Your task to perform on an android device: open app "Microsoft Authenticator" (install if not already installed), go to login, and select forgot password Image 0: 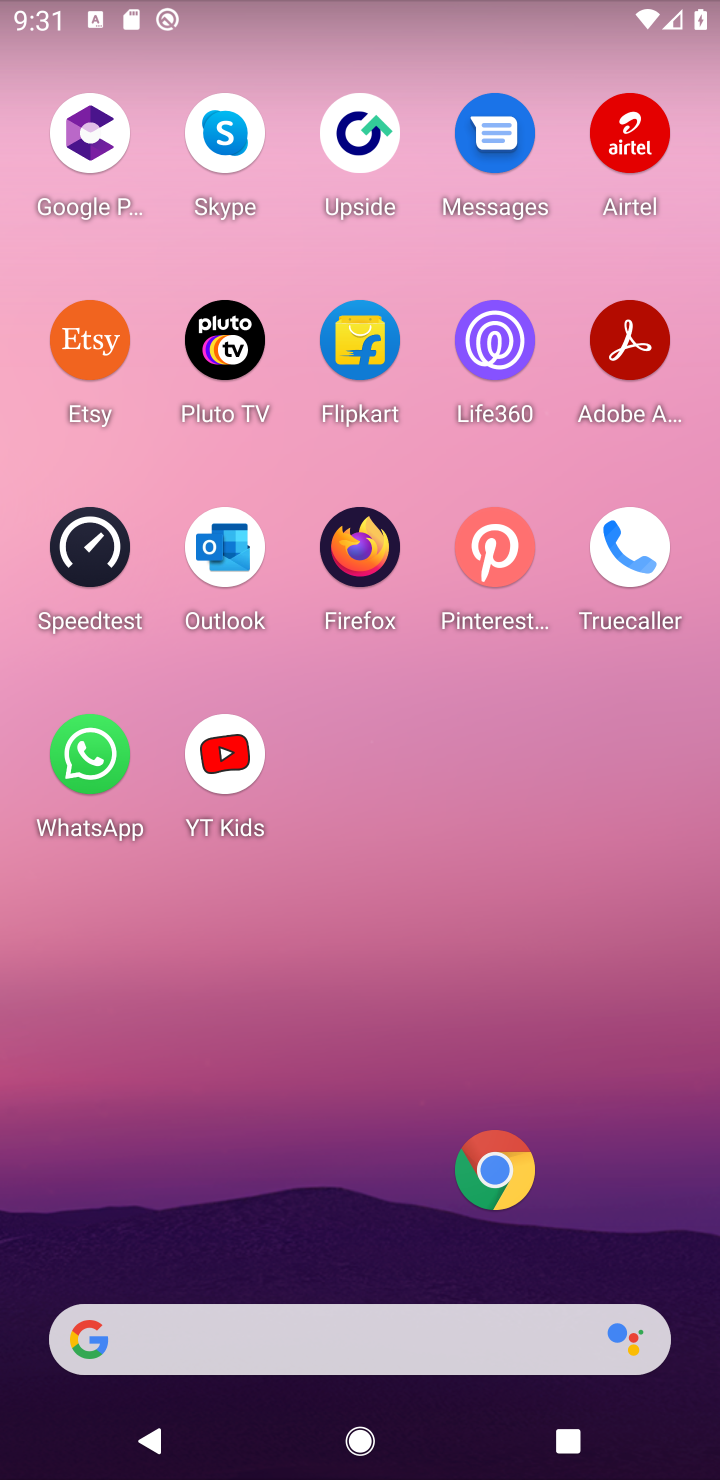
Step 0: drag from (288, 934) to (469, 10)
Your task to perform on an android device: open app "Microsoft Authenticator" (install if not already installed), go to login, and select forgot password Image 1: 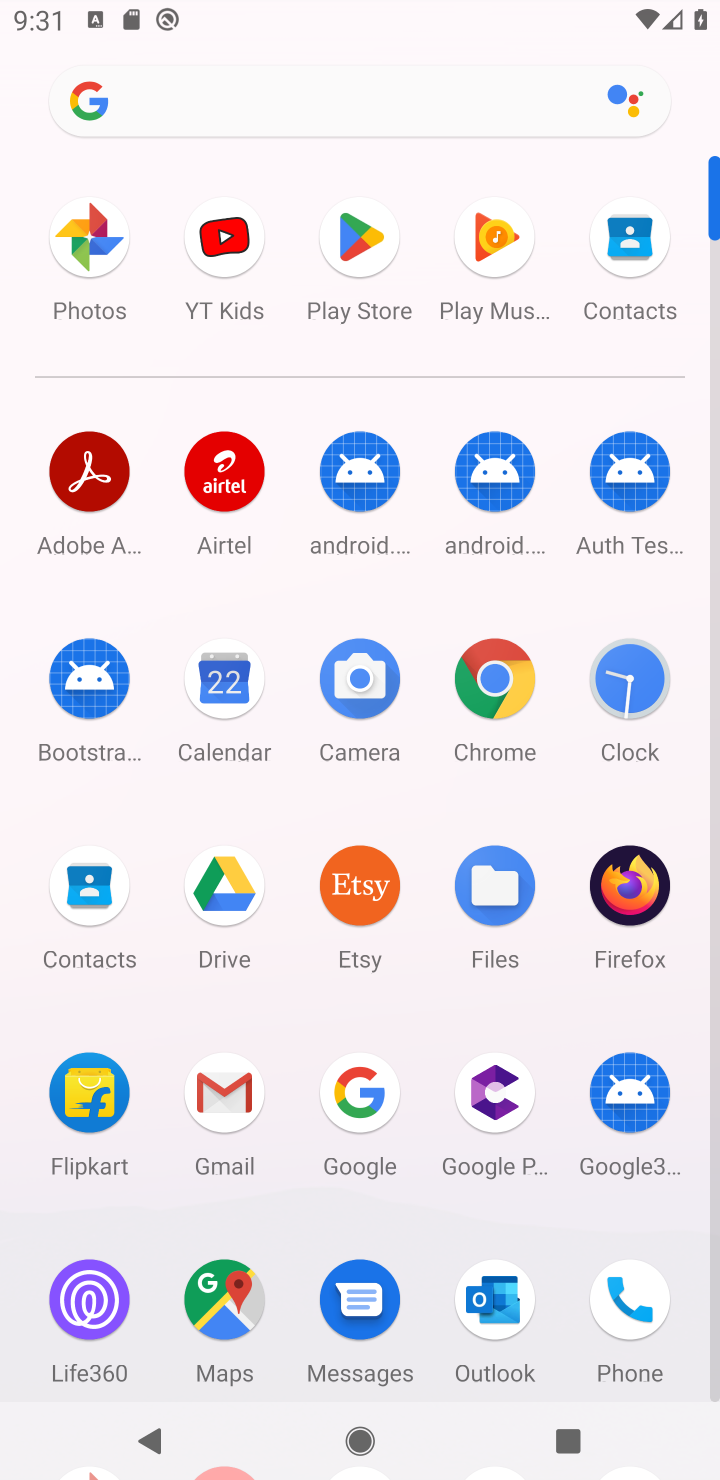
Step 1: click (375, 246)
Your task to perform on an android device: open app "Microsoft Authenticator" (install if not already installed), go to login, and select forgot password Image 2: 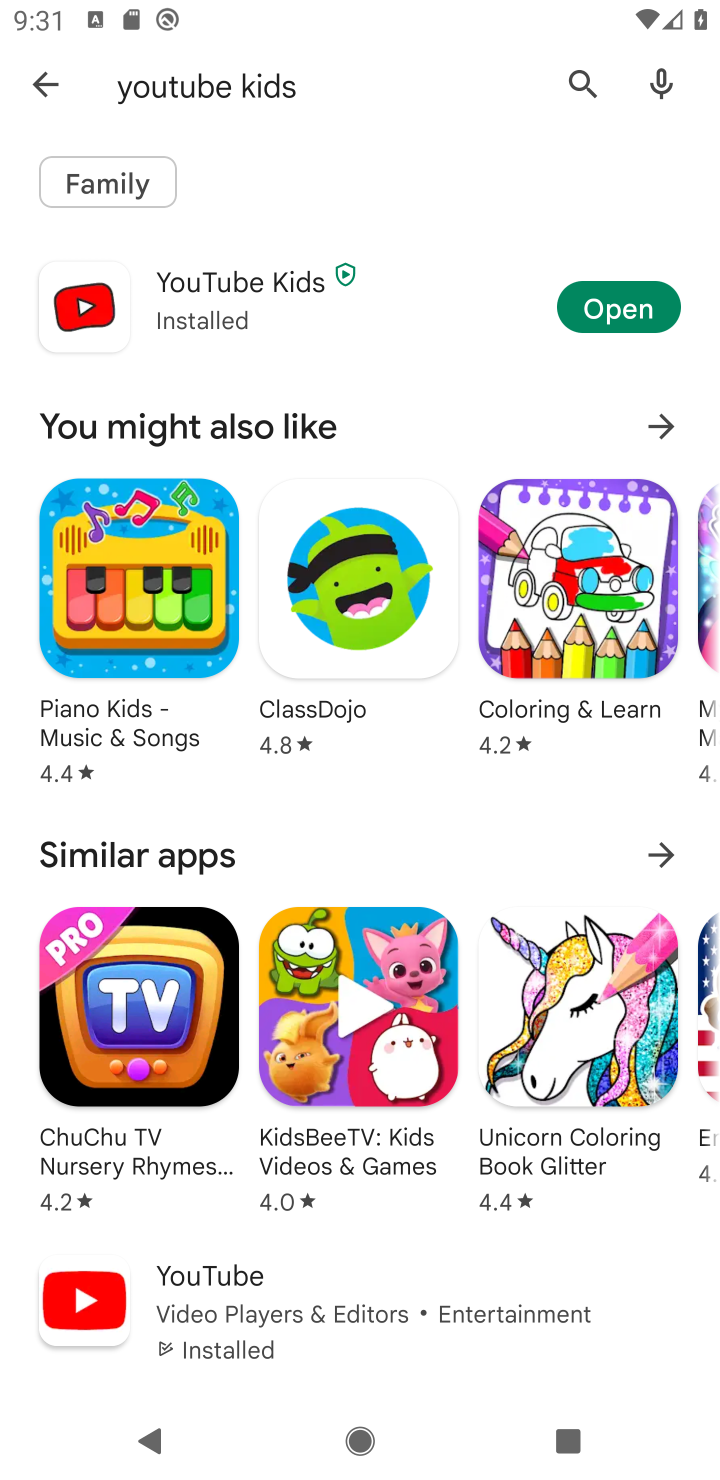
Step 2: click (596, 86)
Your task to perform on an android device: open app "Microsoft Authenticator" (install if not already installed), go to login, and select forgot password Image 3: 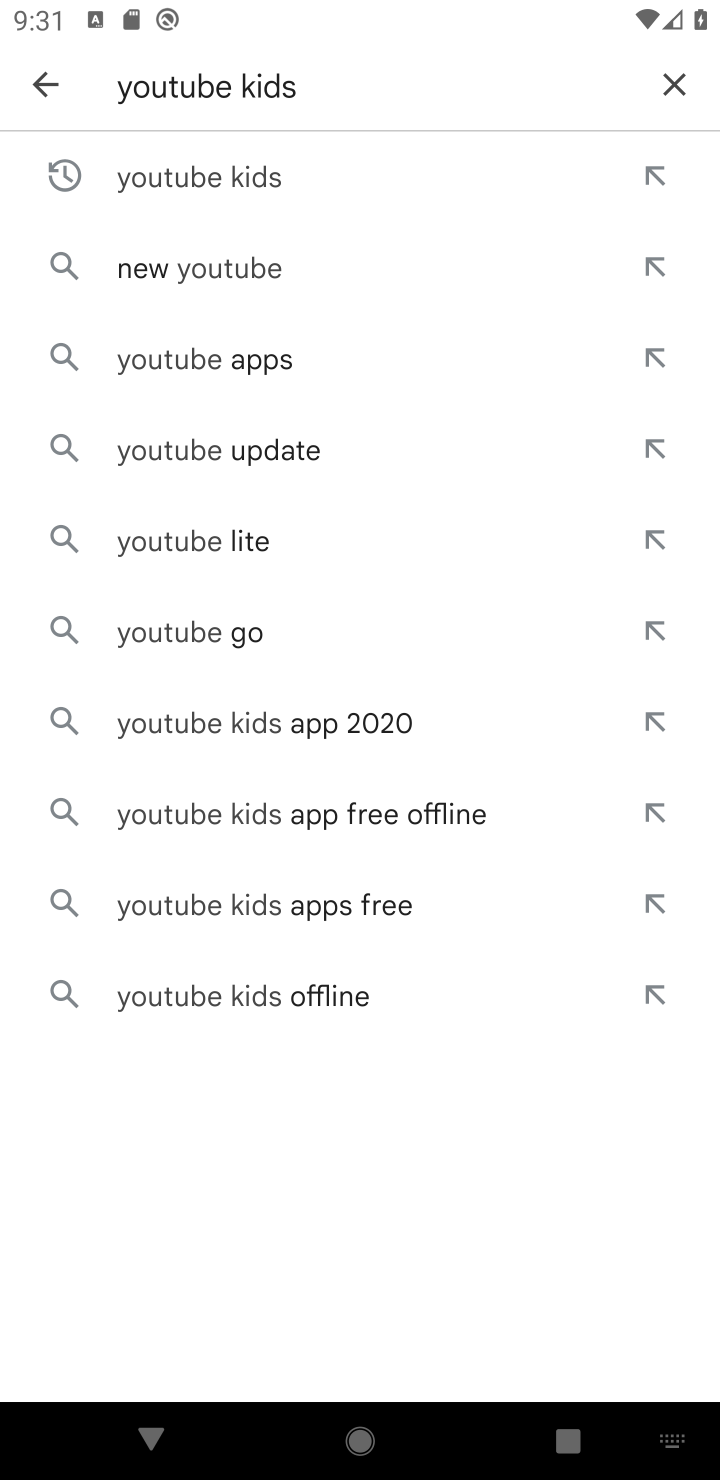
Step 3: click (680, 84)
Your task to perform on an android device: open app "Microsoft Authenticator" (install if not already installed), go to login, and select forgot password Image 4: 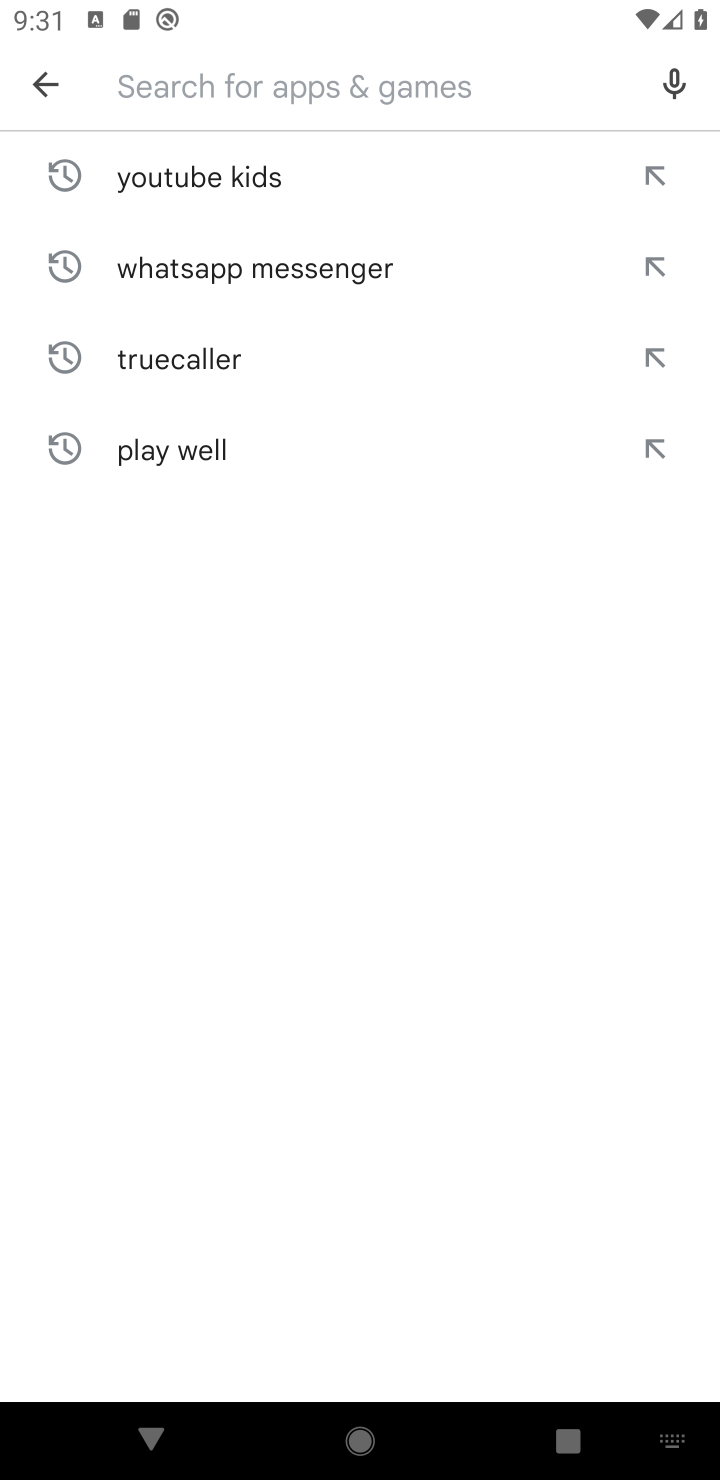
Step 4: click (316, 82)
Your task to perform on an android device: open app "Microsoft Authenticator" (install if not already installed), go to login, and select forgot password Image 5: 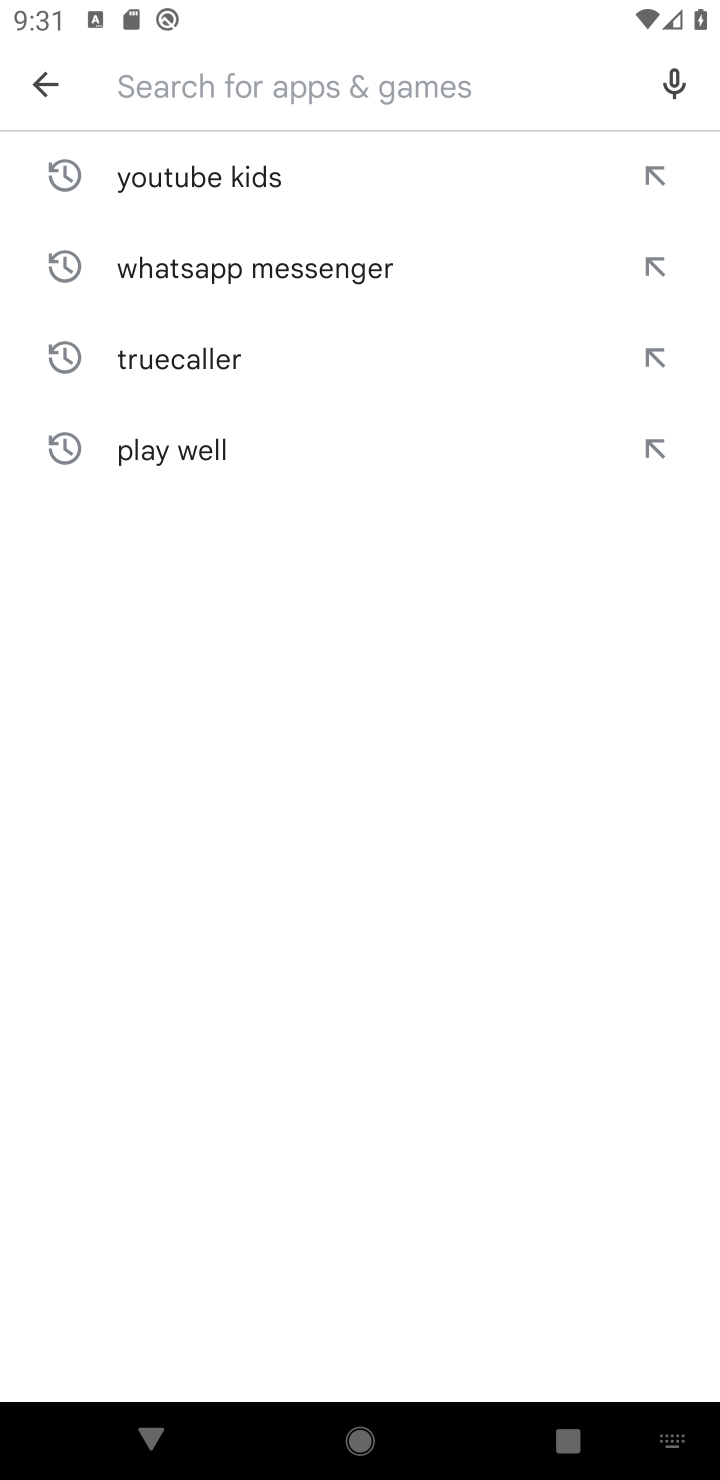
Step 5: type "Microsoft Authenticator"
Your task to perform on an android device: open app "Microsoft Authenticator" (install if not already installed), go to login, and select forgot password Image 6: 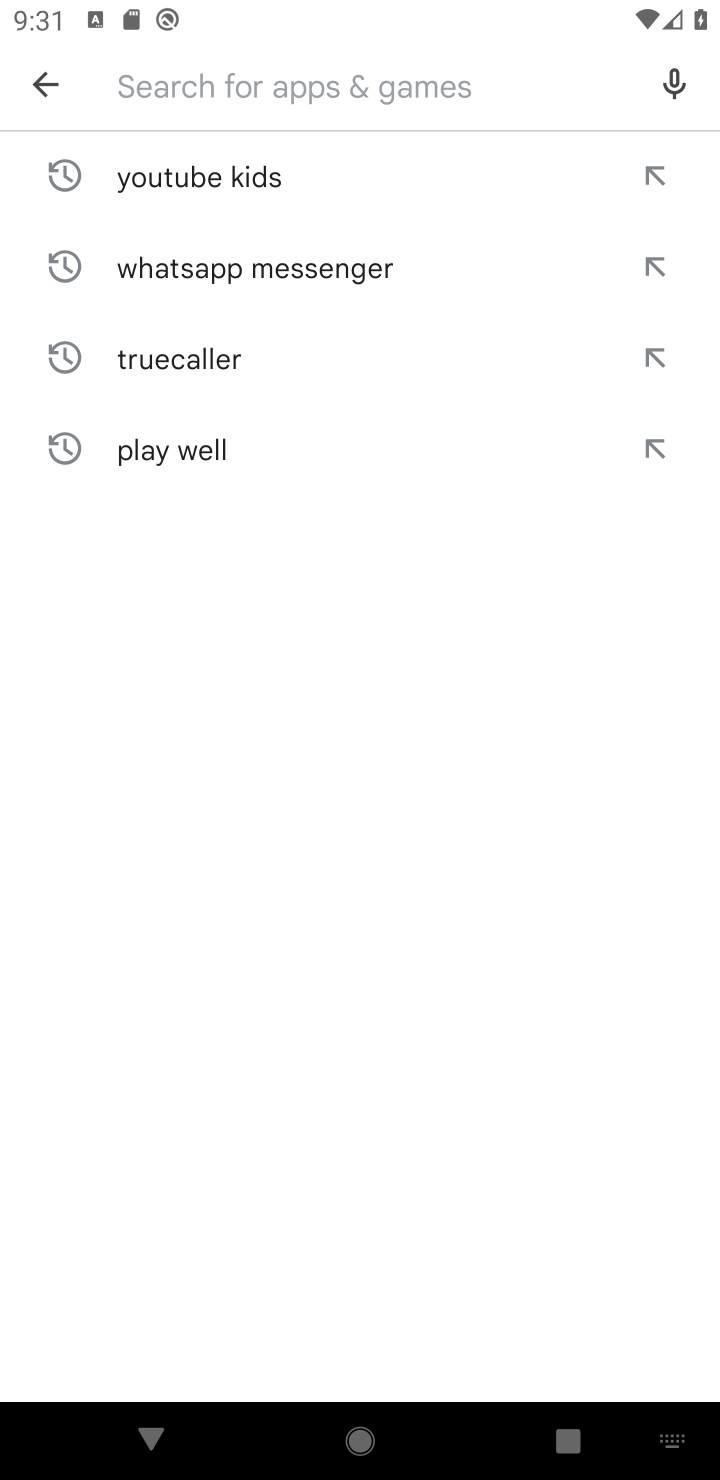
Step 6: click (541, 970)
Your task to perform on an android device: open app "Microsoft Authenticator" (install if not already installed), go to login, and select forgot password Image 7: 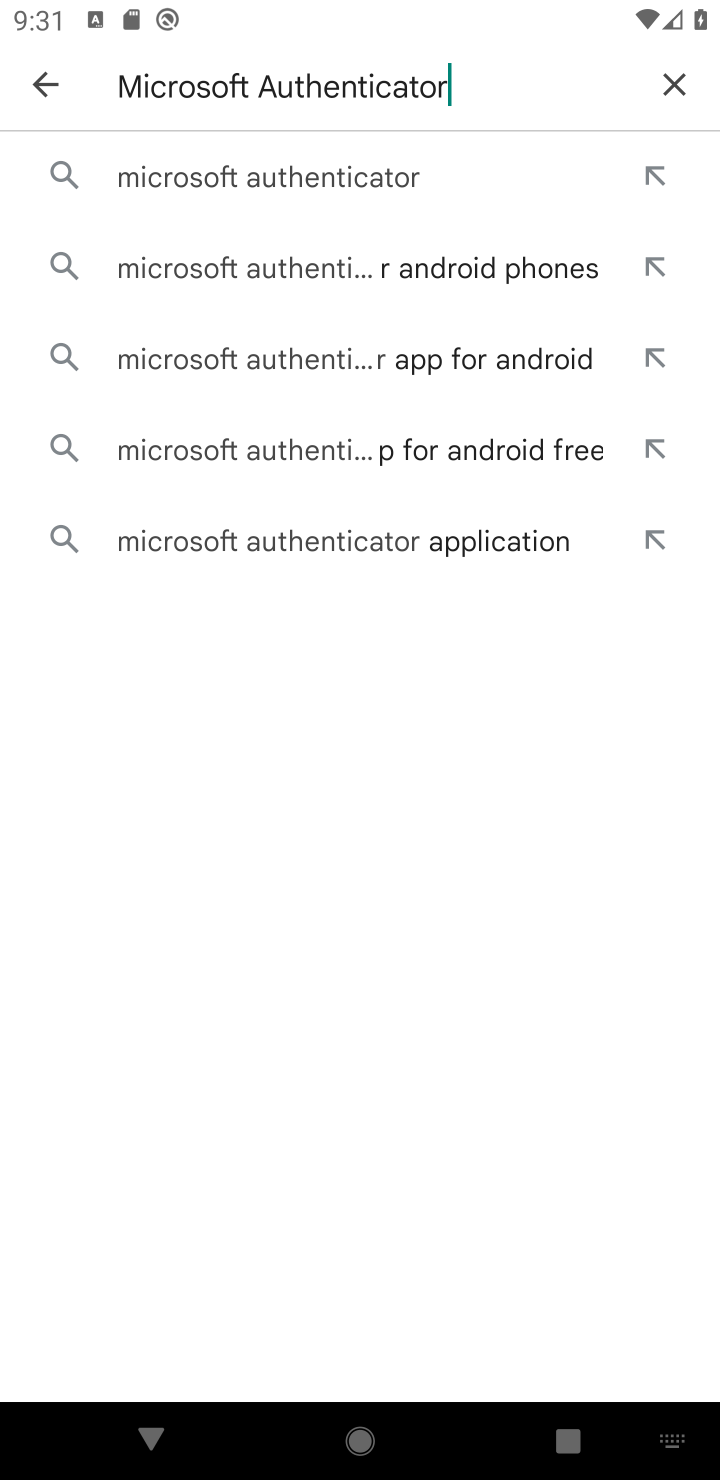
Step 7: click (276, 186)
Your task to perform on an android device: open app "Microsoft Authenticator" (install if not already installed), go to login, and select forgot password Image 8: 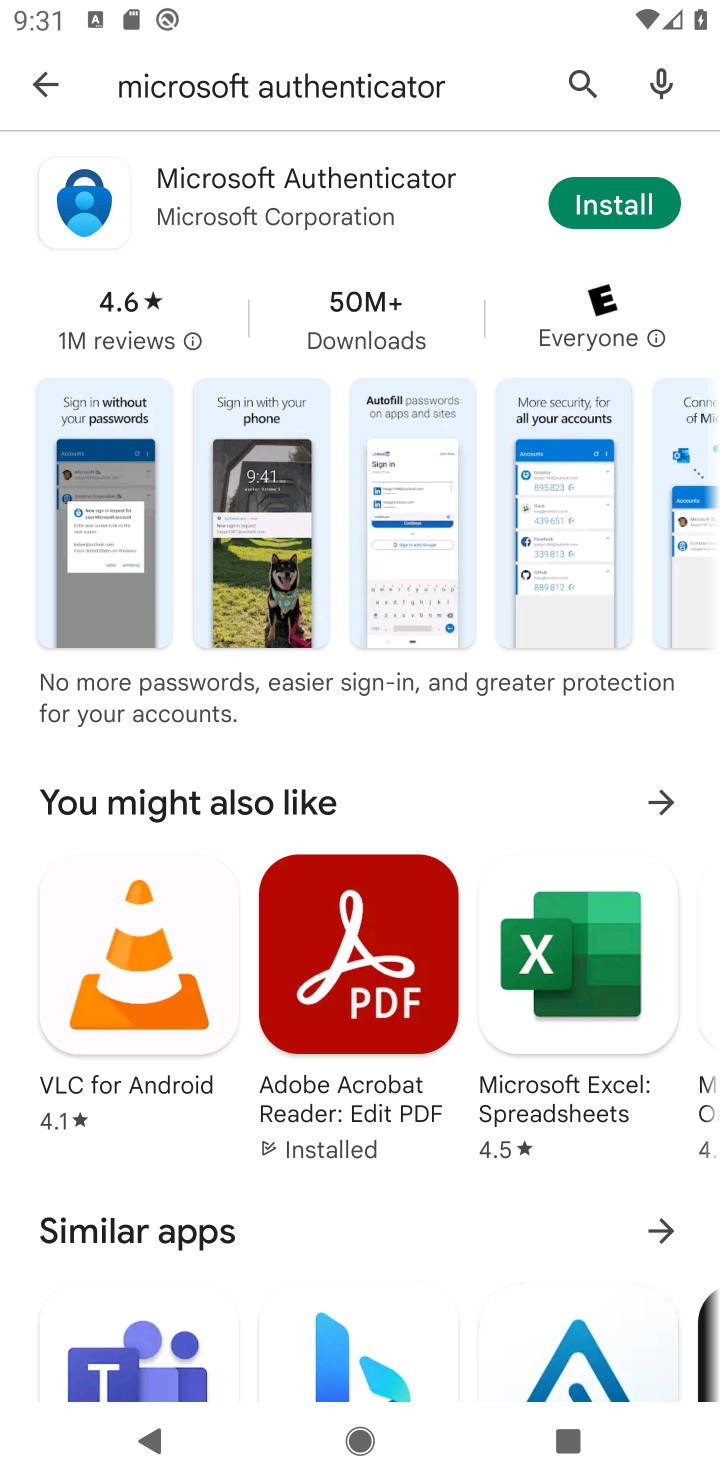
Step 8: click (611, 198)
Your task to perform on an android device: open app "Microsoft Authenticator" (install if not already installed), go to login, and select forgot password Image 9: 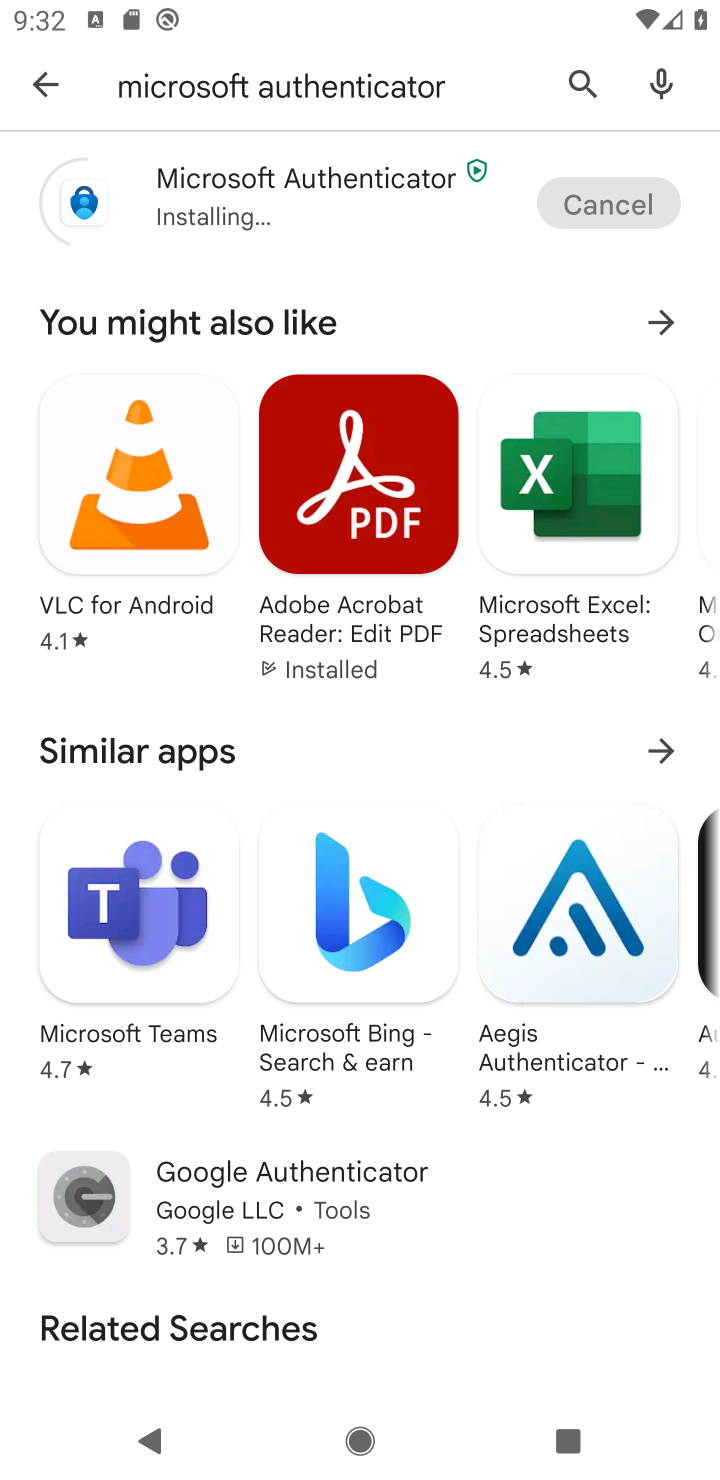
Step 9: click (308, 188)
Your task to perform on an android device: open app "Microsoft Authenticator" (install if not already installed), go to login, and select forgot password Image 10: 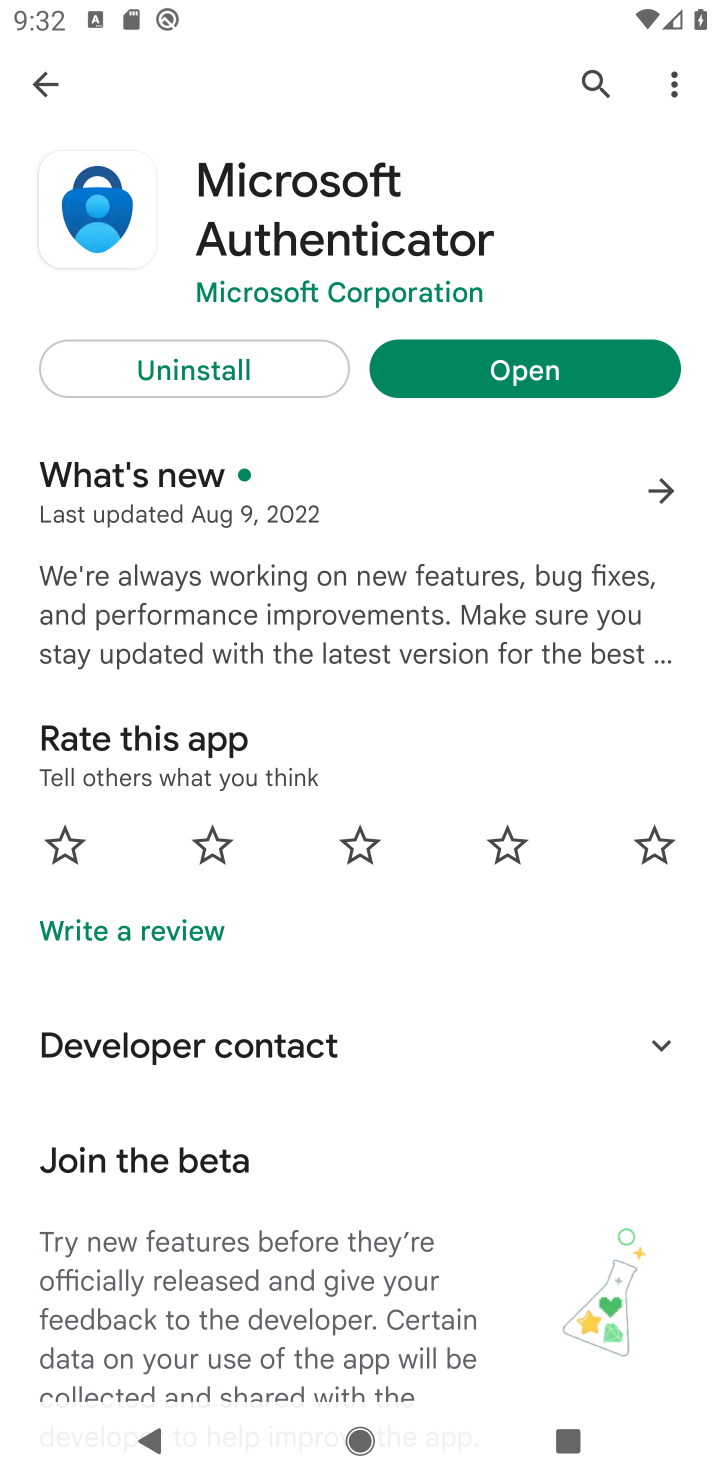
Step 10: click (551, 366)
Your task to perform on an android device: open app "Microsoft Authenticator" (install if not already installed), go to login, and select forgot password Image 11: 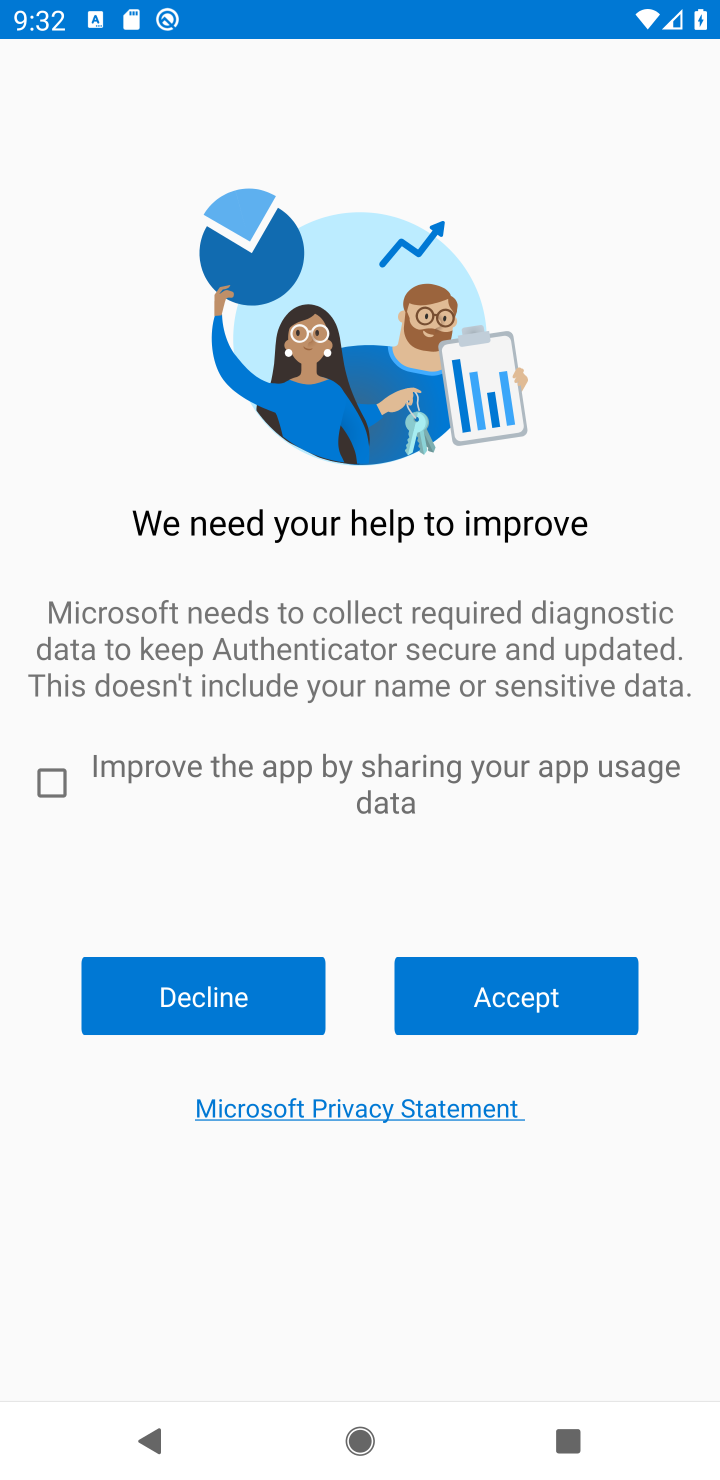
Step 11: click (40, 775)
Your task to perform on an android device: open app "Microsoft Authenticator" (install if not already installed), go to login, and select forgot password Image 12: 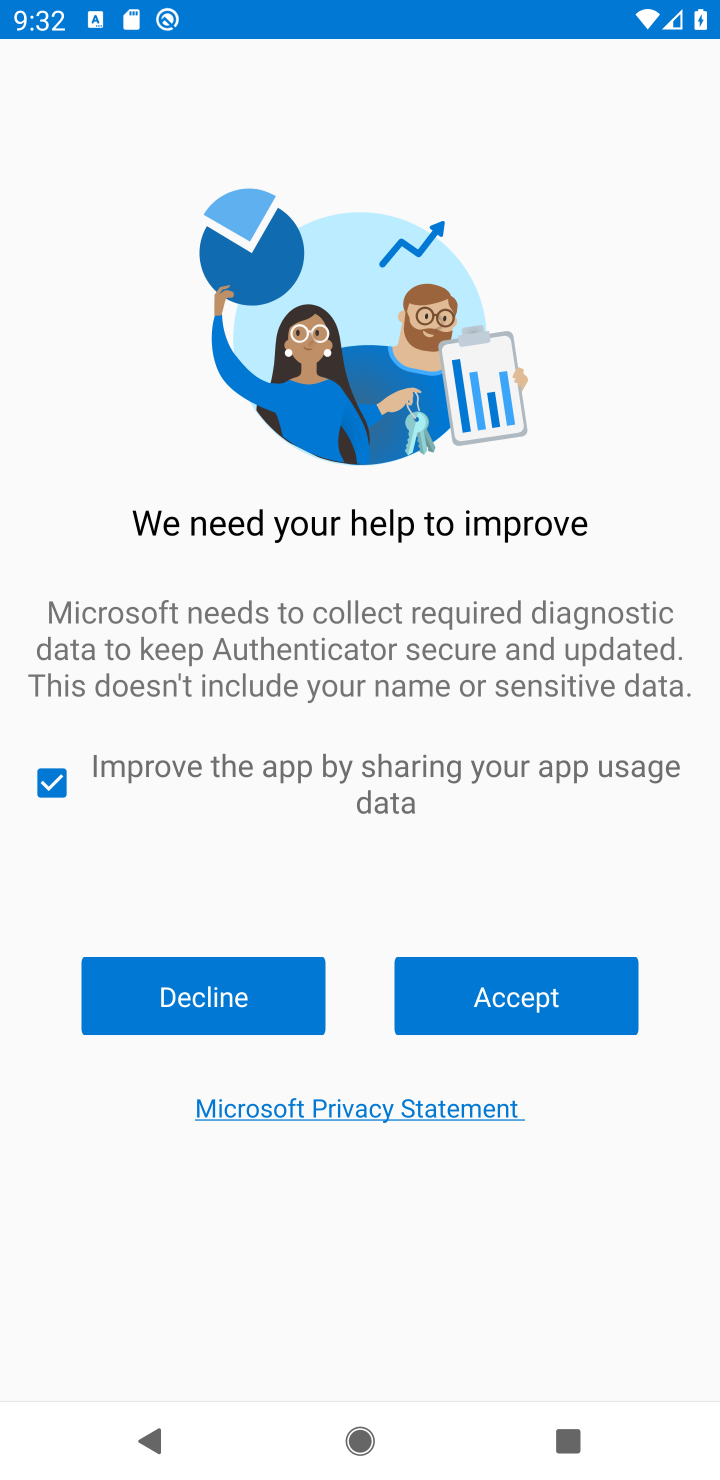
Step 12: click (577, 976)
Your task to perform on an android device: open app "Microsoft Authenticator" (install if not already installed), go to login, and select forgot password Image 13: 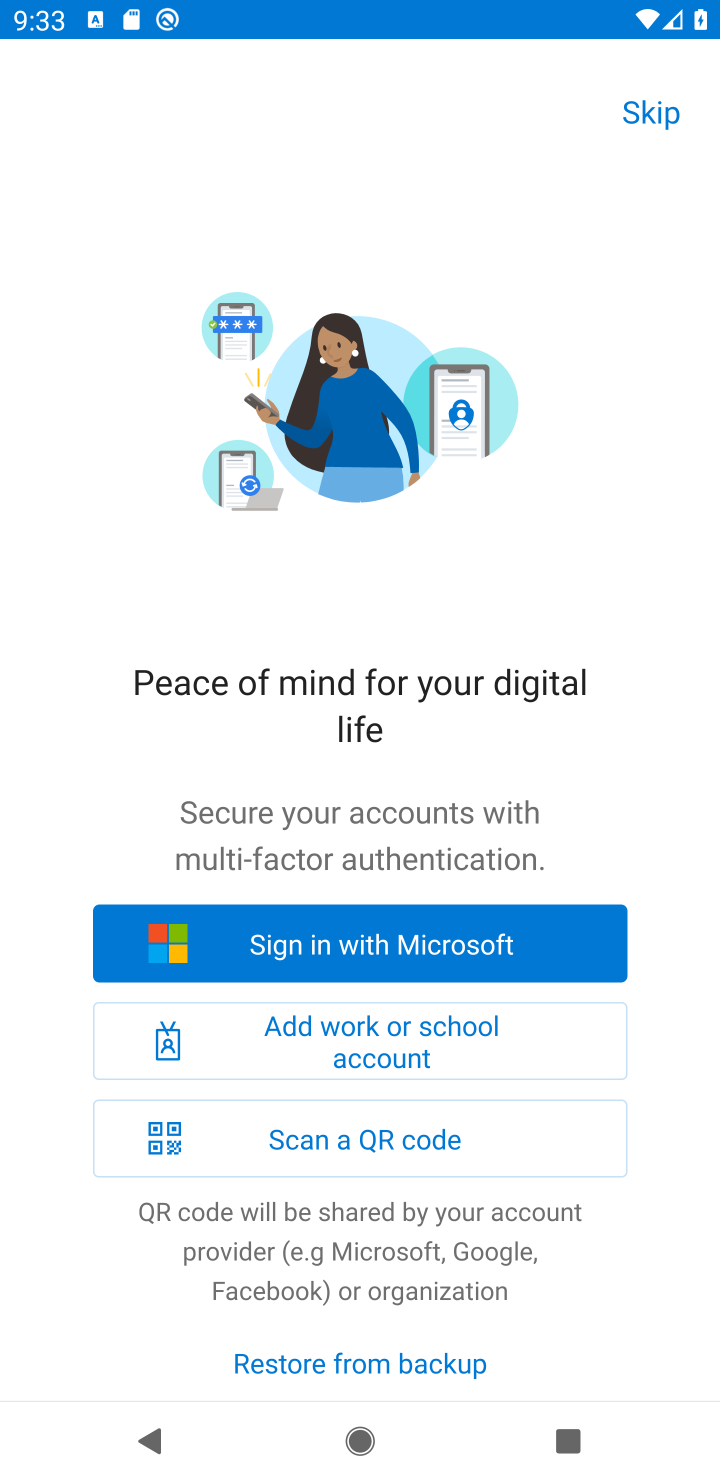
Step 13: click (398, 945)
Your task to perform on an android device: open app "Microsoft Authenticator" (install if not already installed), go to login, and select forgot password Image 14: 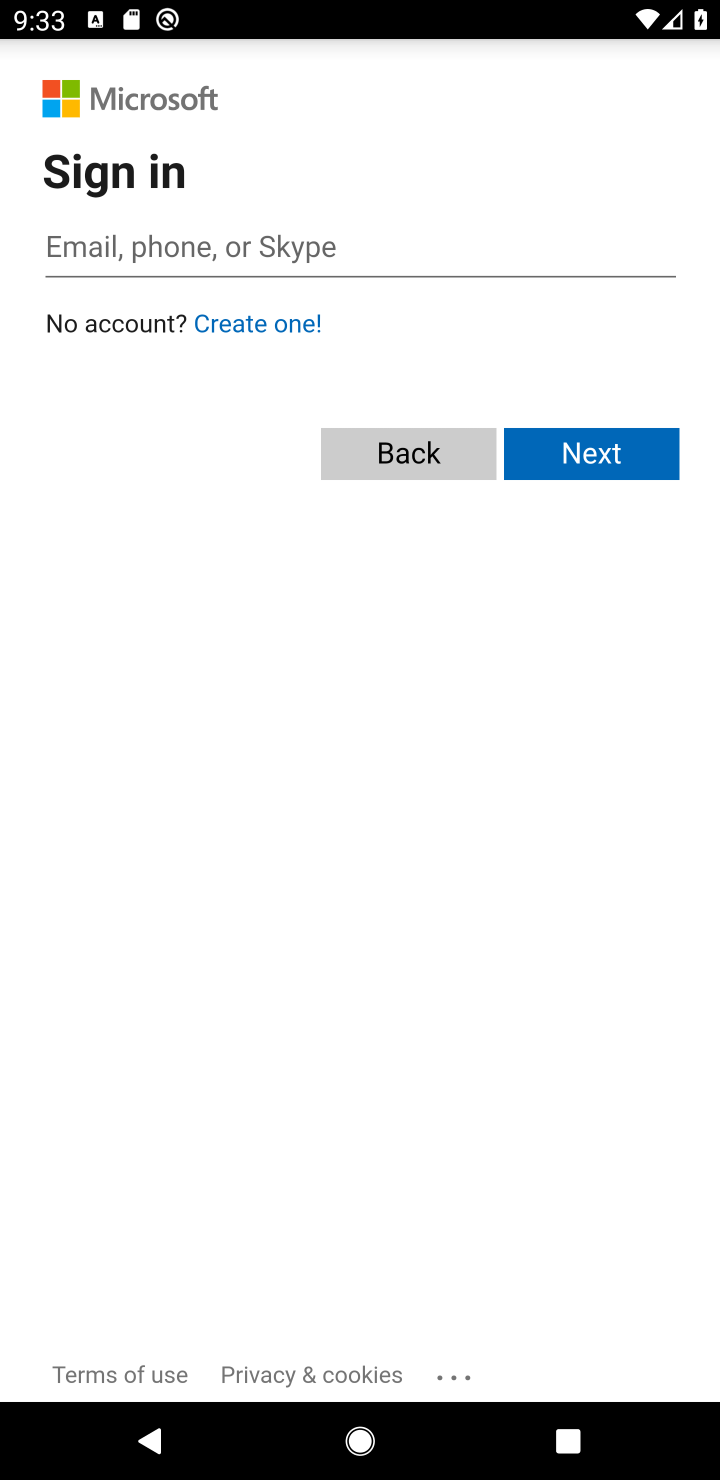
Step 14: task complete